Your task to perform on an android device: What's on my calendar tomorrow? Image 0: 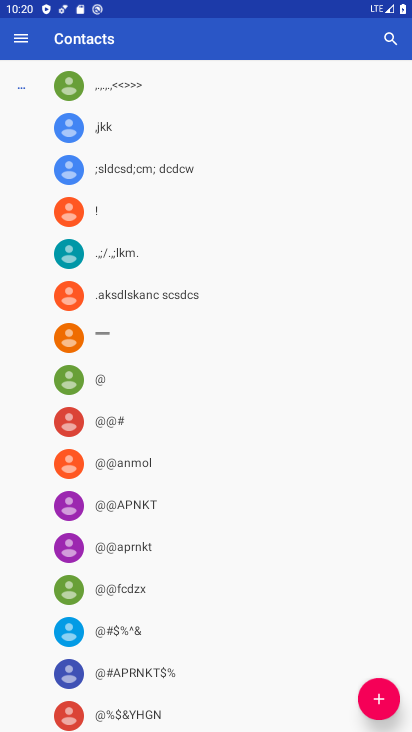
Step 0: press home button
Your task to perform on an android device: What's on my calendar tomorrow? Image 1: 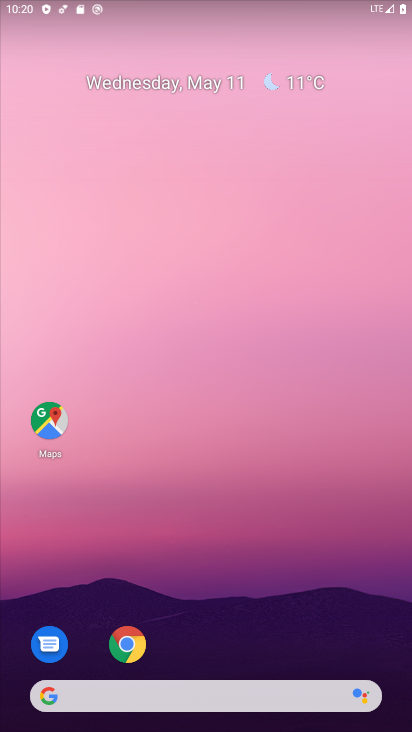
Step 1: drag from (218, 666) to (221, 155)
Your task to perform on an android device: What's on my calendar tomorrow? Image 2: 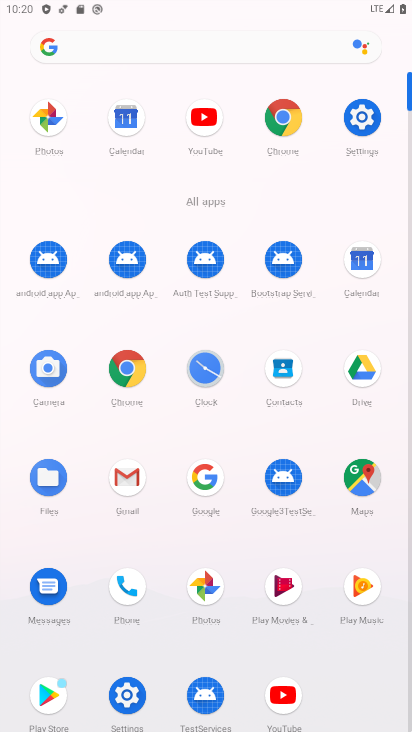
Step 2: click (355, 259)
Your task to perform on an android device: What's on my calendar tomorrow? Image 3: 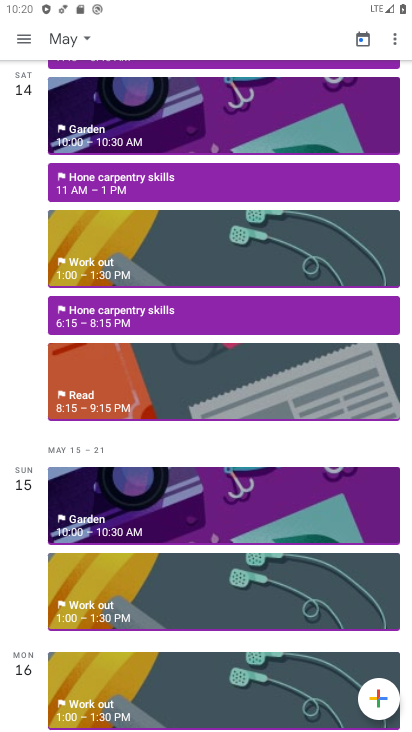
Step 3: click (78, 40)
Your task to perform on an android device: What's on my calendar tomorrow? Image 4: 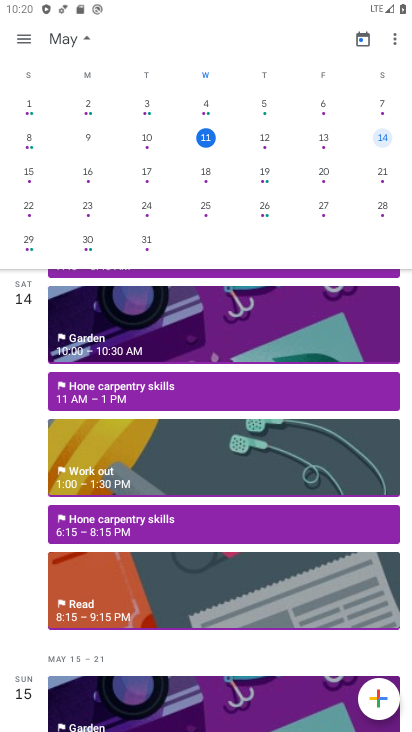
Step 4: click (265, 139)
Your task to perform on an android device: What's on my calendar tomorrow? Image 5: 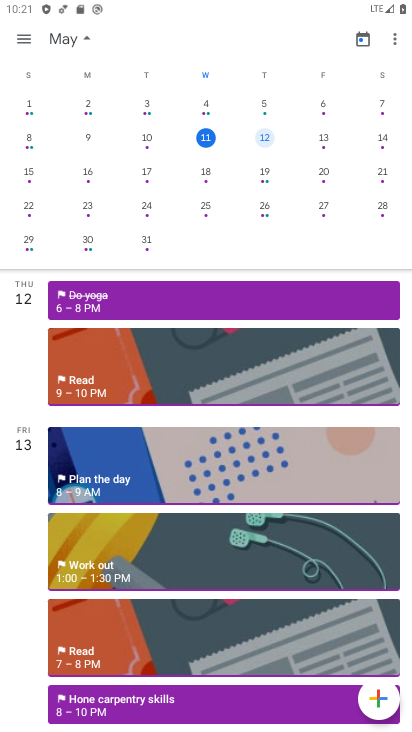
Step 5: click (266, 134)
Your task to perform on an android device: What's on my calendar tomorrow? Image 6: 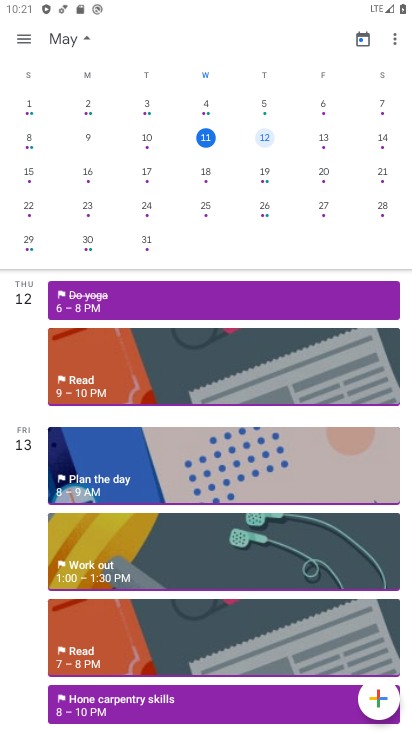
Step 6: click (83, 35)
Your task to perform on an android device: What's on my calendar tomorrow? Image 7: 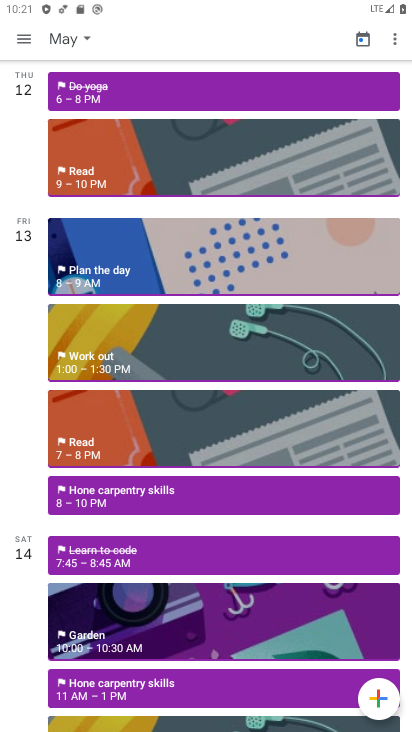
Step 7: click (23, 102)
Your task to perform on an android device: What's on my calendar tomorrow? Image 8: 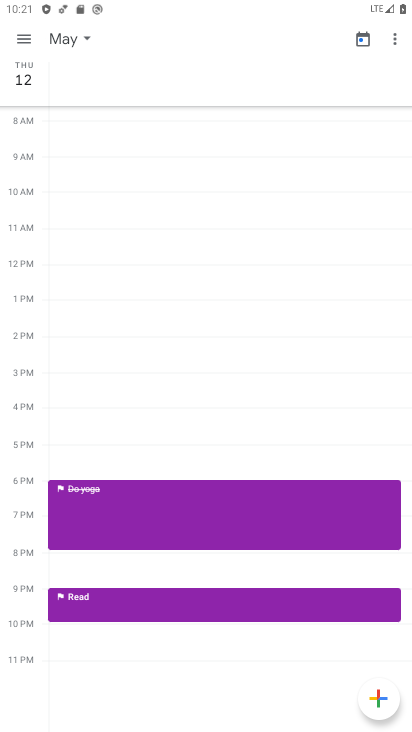
Step 8: task complete